Your task to perform on an android device: search for starred emails in the gmail app Image 0: 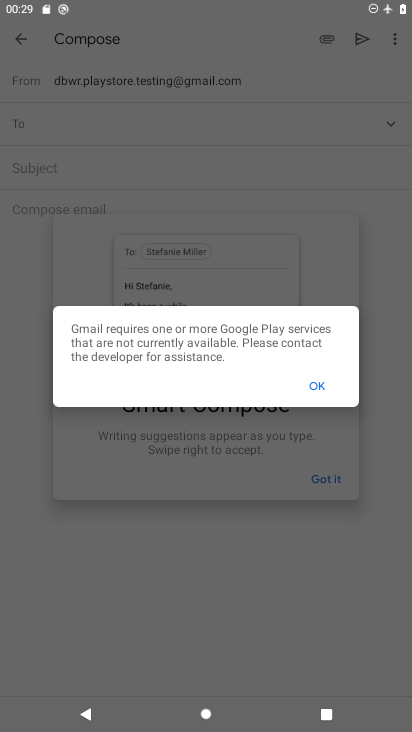
Step 0: press home button
Your task to perform on an android device: search for starred emails in the gmail app Image 1: 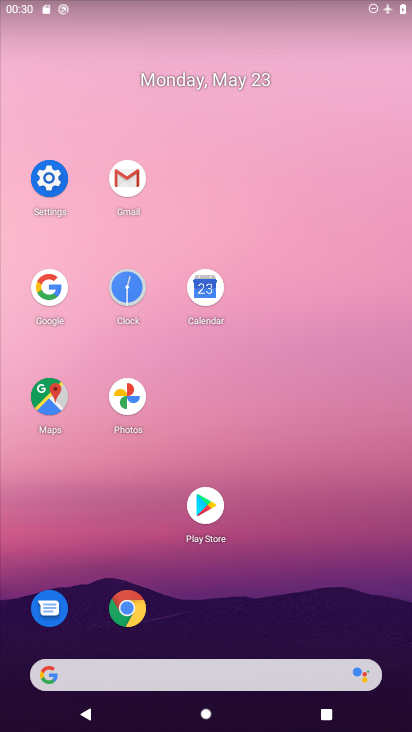
Step 1: click (138, 172)
Your task to perform on an android device: search for starred emails in the gmail app Image 2: 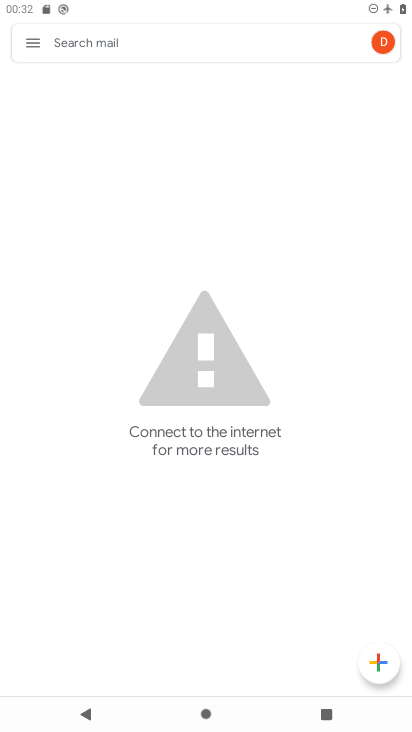
Step 2: click (34, 46)
Your task to perform on an android device: search for starred emails in the gmail app Image 3: 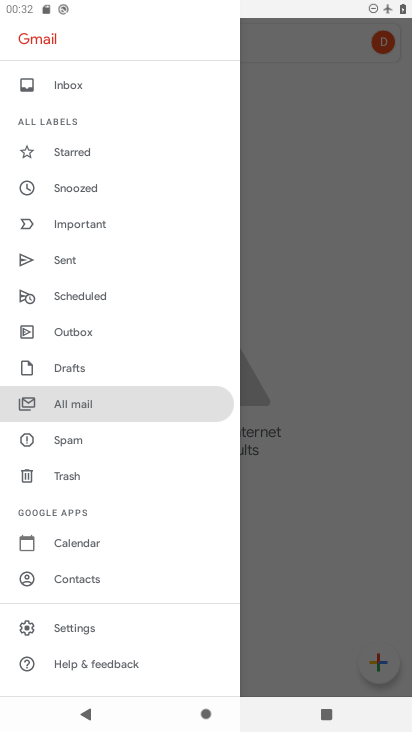
Step 3: click (95, 144)
Your task to perform on an android device: search for starred emails in the gmail app Image 4: 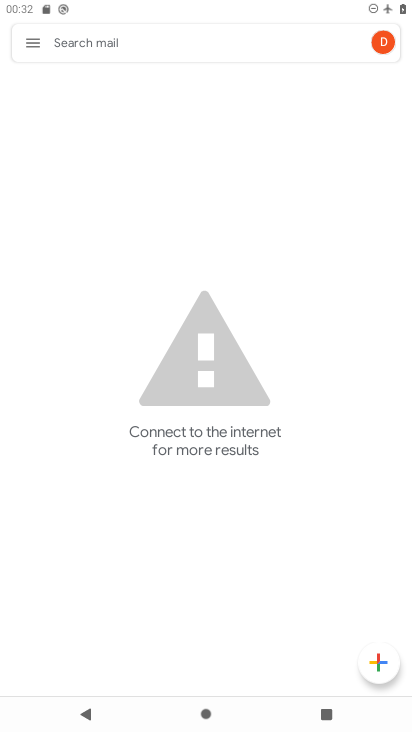
Step 4: task complete